Your task to perform on an android device: install app "Flipkart Online Shopping App" Image 0: 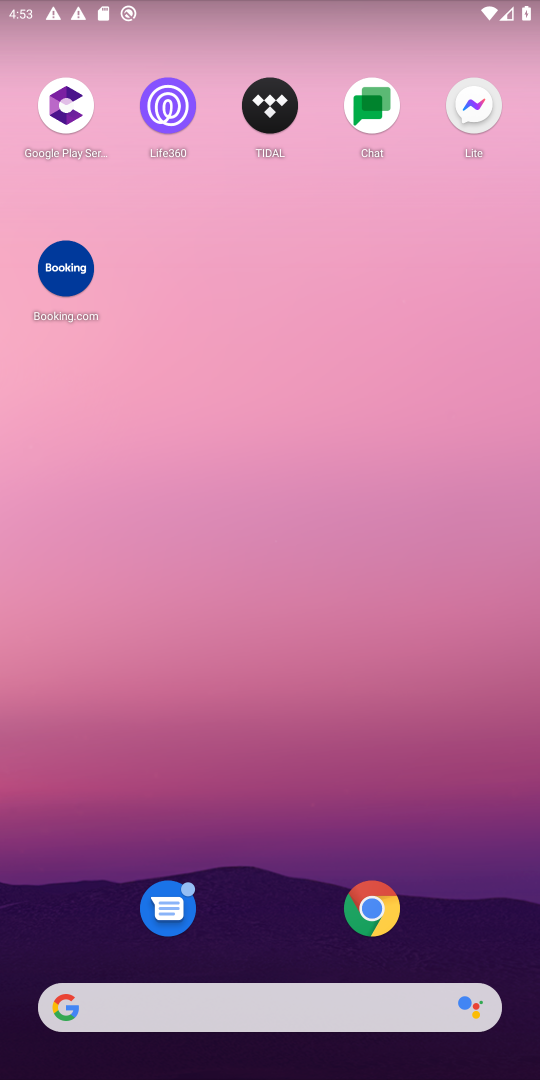
Step 0: drag from (280, 879) to (274, 153)
Your task to perform on an android device: install app "Flipkart Online Shopping App" Image 1: 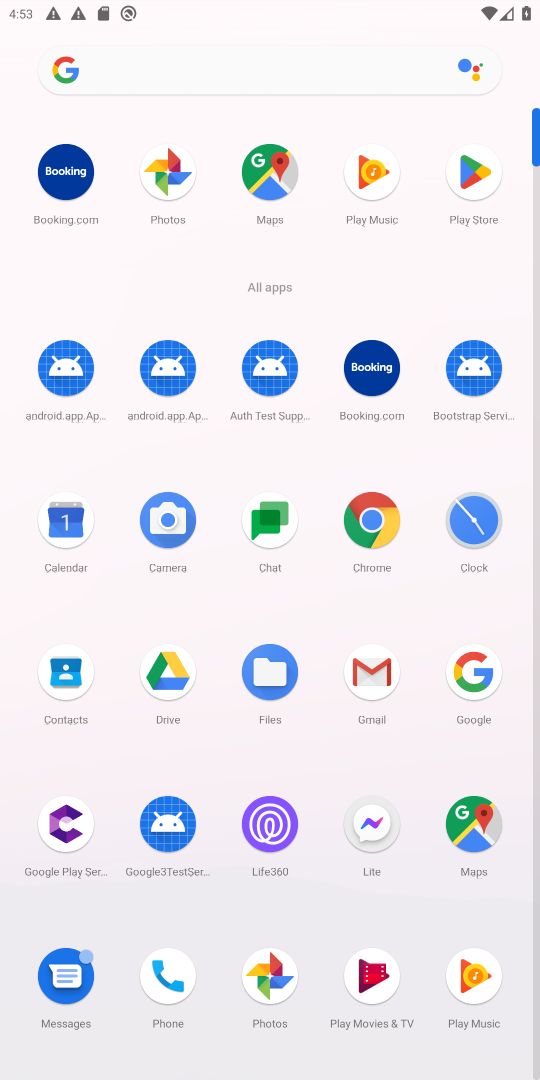
Step 1: click (459, 179)
Your task to perform on an android device: install app "Flipkart Online Shopping App" Image 2: 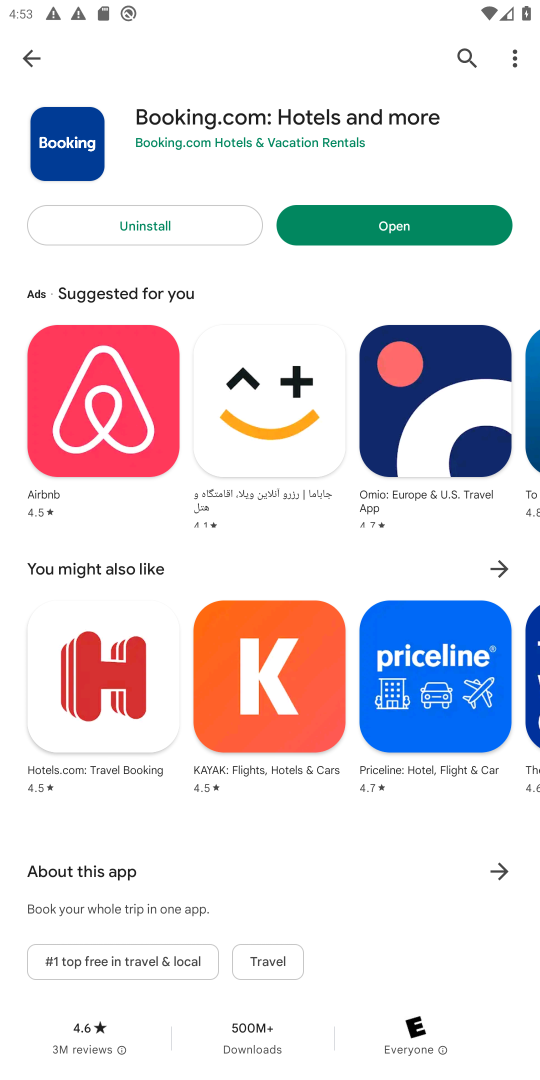
Step 2: click (33, 62)
Your task to perform on an android device: install app "Flipkart Online Shopping App" Image 3: 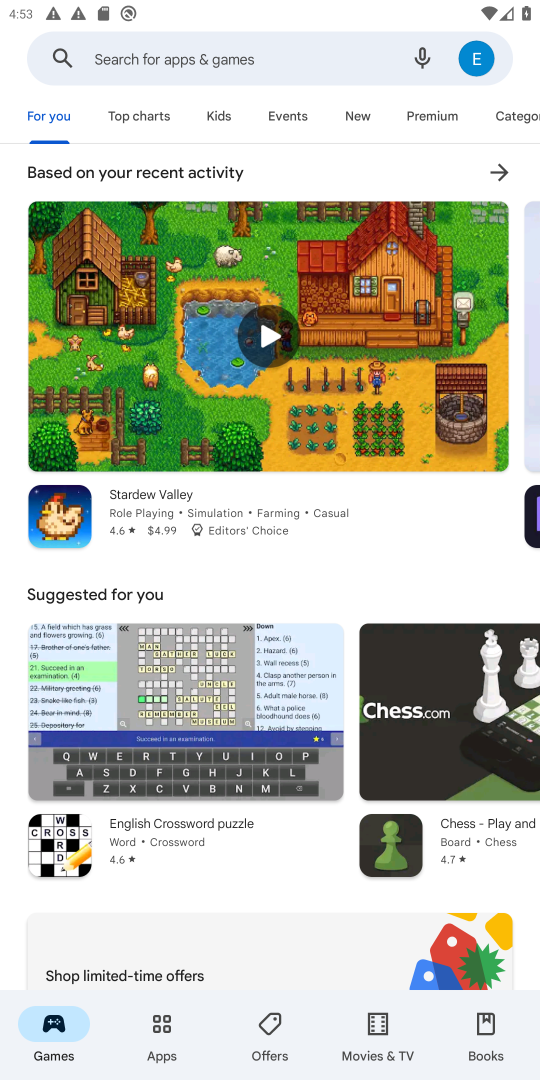
Step 3: click (210, 56)
Your task to perform on an android device: install app "Flipkart Online Shopping App" Image 4: 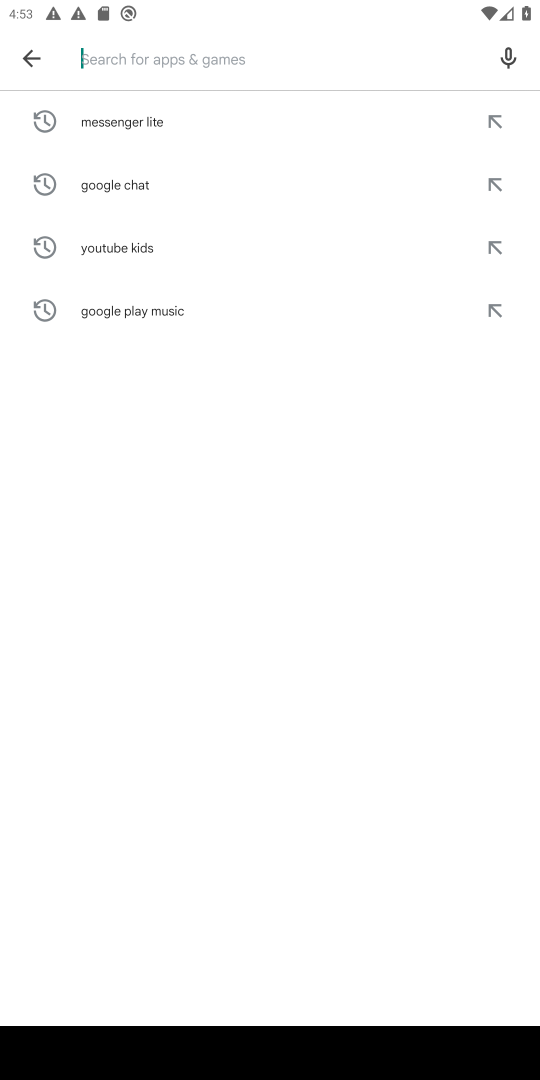
Step 4: type "Flipkart Online Shopping App"
Your task to perform on an android device: install app "Flipkart Online Shopping App" Image 5: 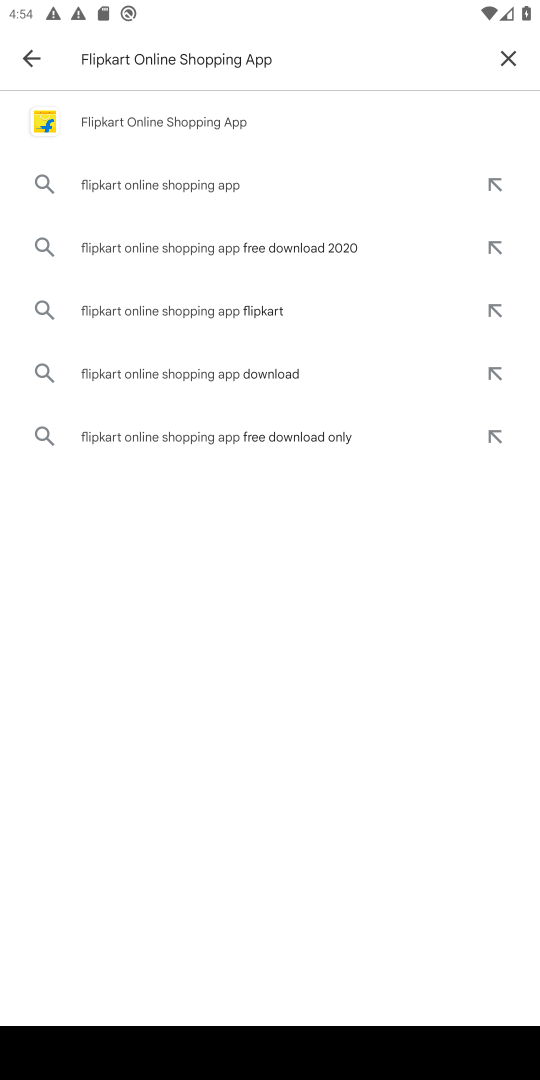
Step 5: click (120, 122)
Your task to perform on an android device: install app "Flipkart Online Shopping App" Image 6: 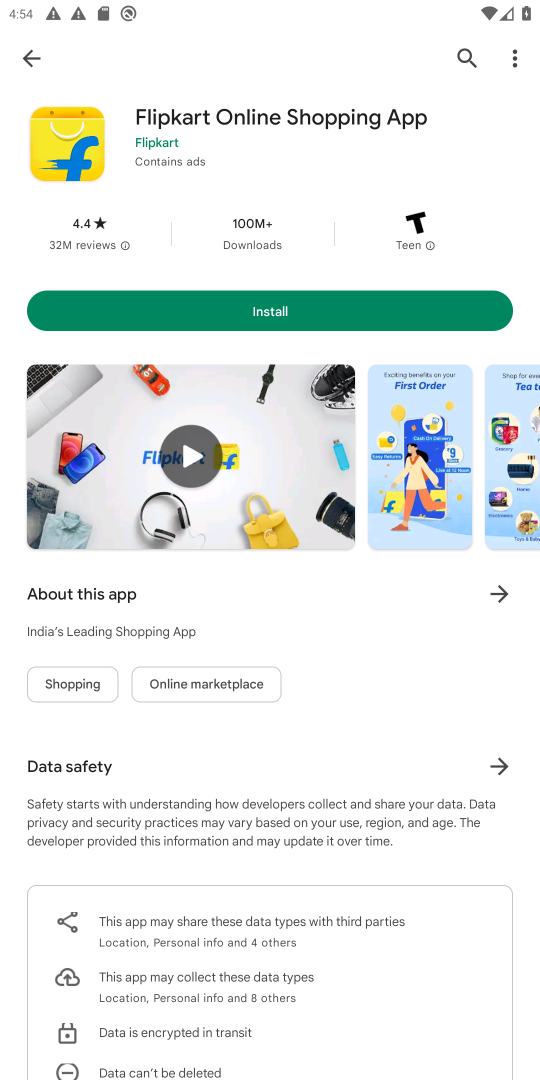
Step 6: click (279, 291)
Your task to perform on an android device: install app "Flipkart Online Shopping App" Image 7: 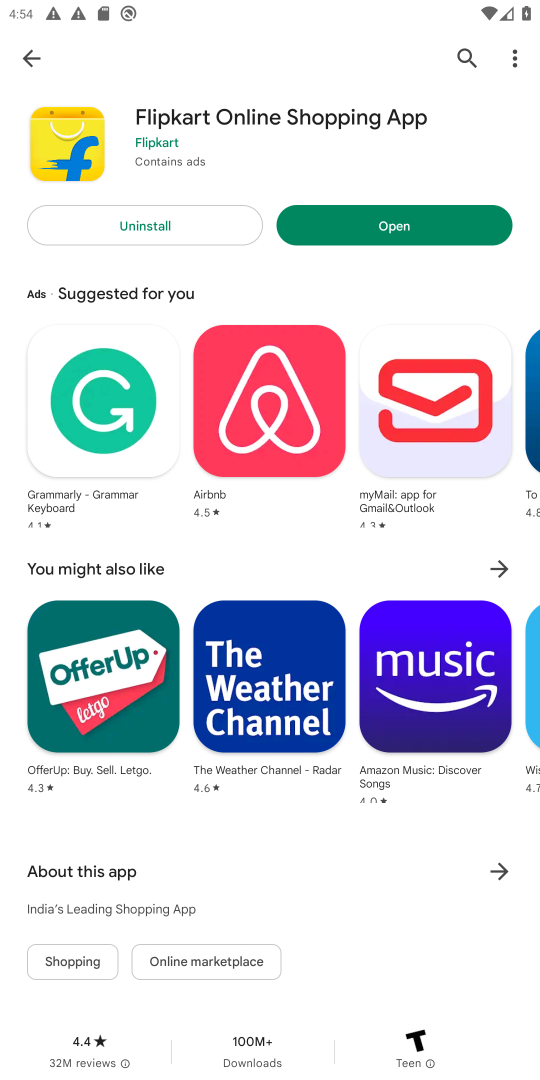
Step 7: click (343, 223)
Your task to perform on an android device: install app "Flipkart Online Shopping App" Image 8: 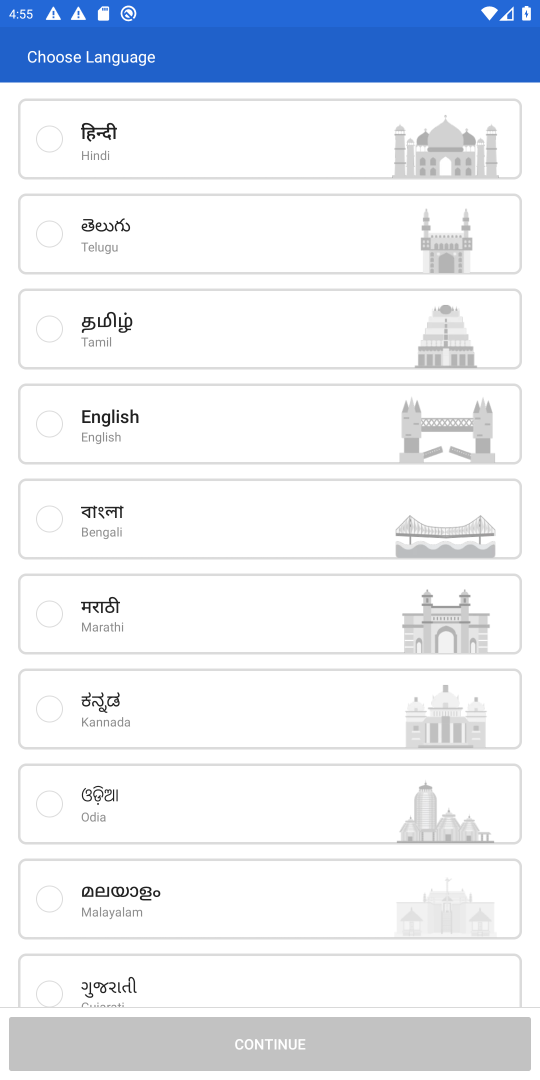
Step 8: task complete